Your task to perform on an android device: turn on showing notifications on the lock screen Image 0: 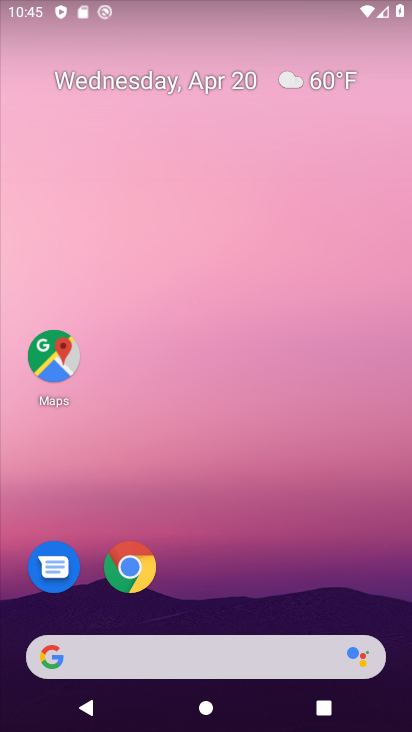
Step 0: drag from (353, 551) to (300, 191)
Your task to perform on an android device: turn on showing notifications on the lock screen Image 1: 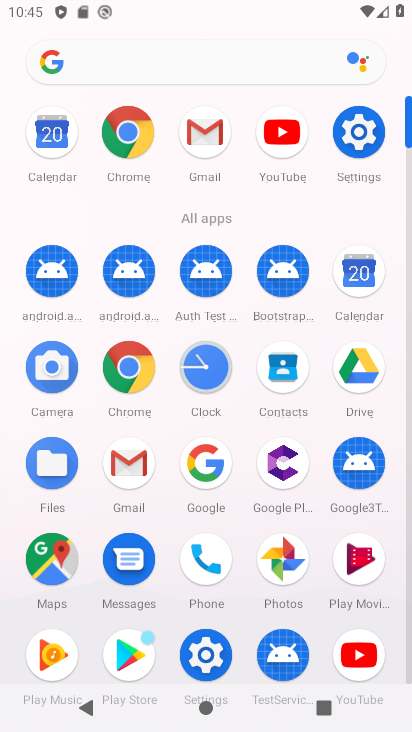
Step 1: click (372, 137)
Your task to perform on an android device: turn on showing notifications on the lock screen Image 2: 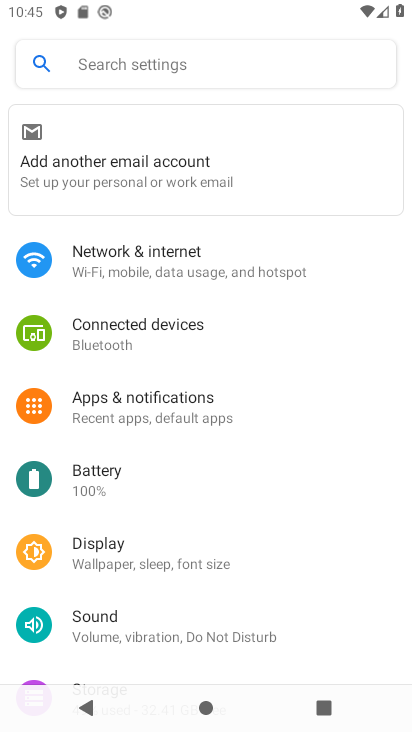
Step 2: click (161, 403)
Your task to perform on an android device: turn on showing notifications on the lock screen Image 3: 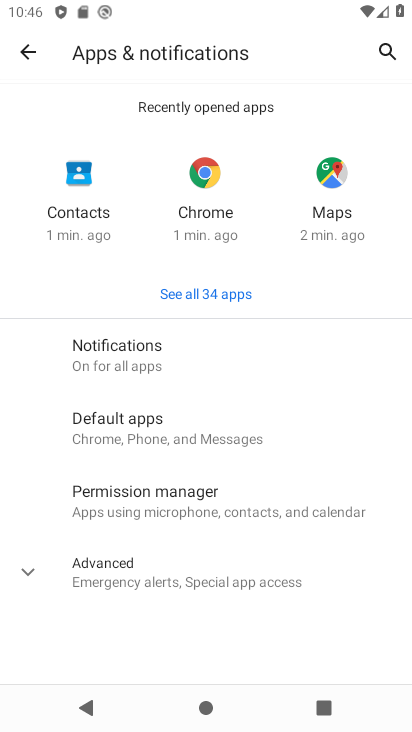
Step 3: click (158, 346)
Your task to perform on an android device: turn on showing notifications on the lock screen Image 4: 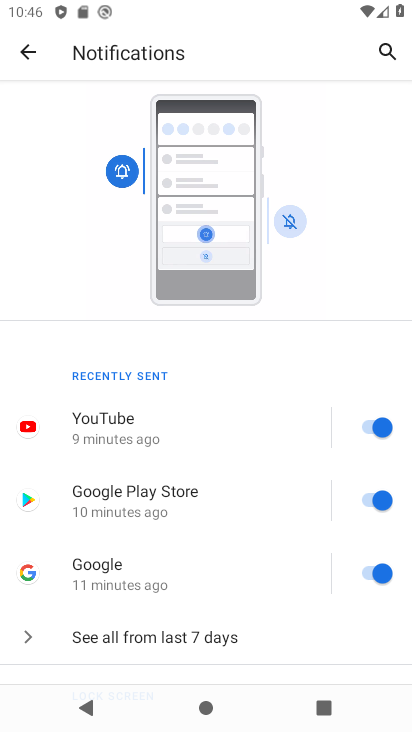
Step 4: drag from (186, 598) to (149, 267)
Your task to perform on an android device: turn on showing notifications on the lock screen Image 5: 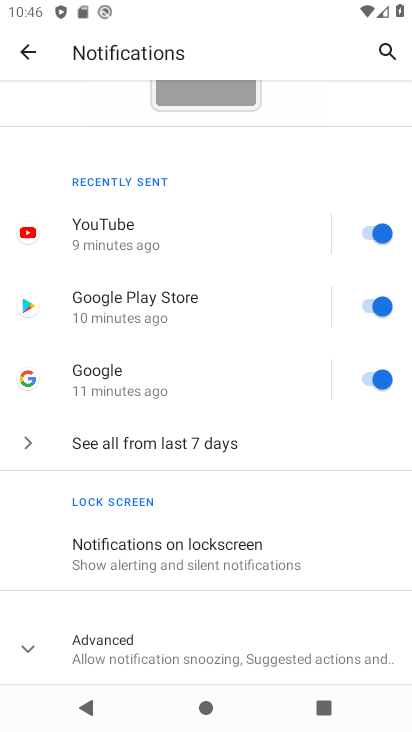
Step 5: click (193, 550)
Your task to perform on an android device: turn on showing notifications on the lock screen Image 6: 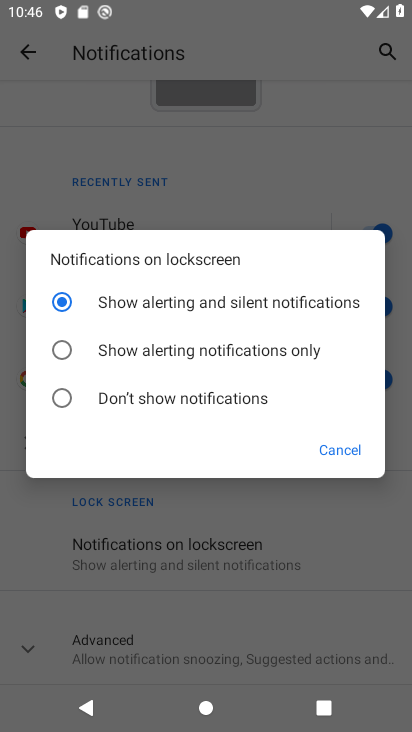
Step 6: task complete